Your task to perform on an android device: Add logitech g903 to the cart on newegg.com, then select checkout. Image 0: 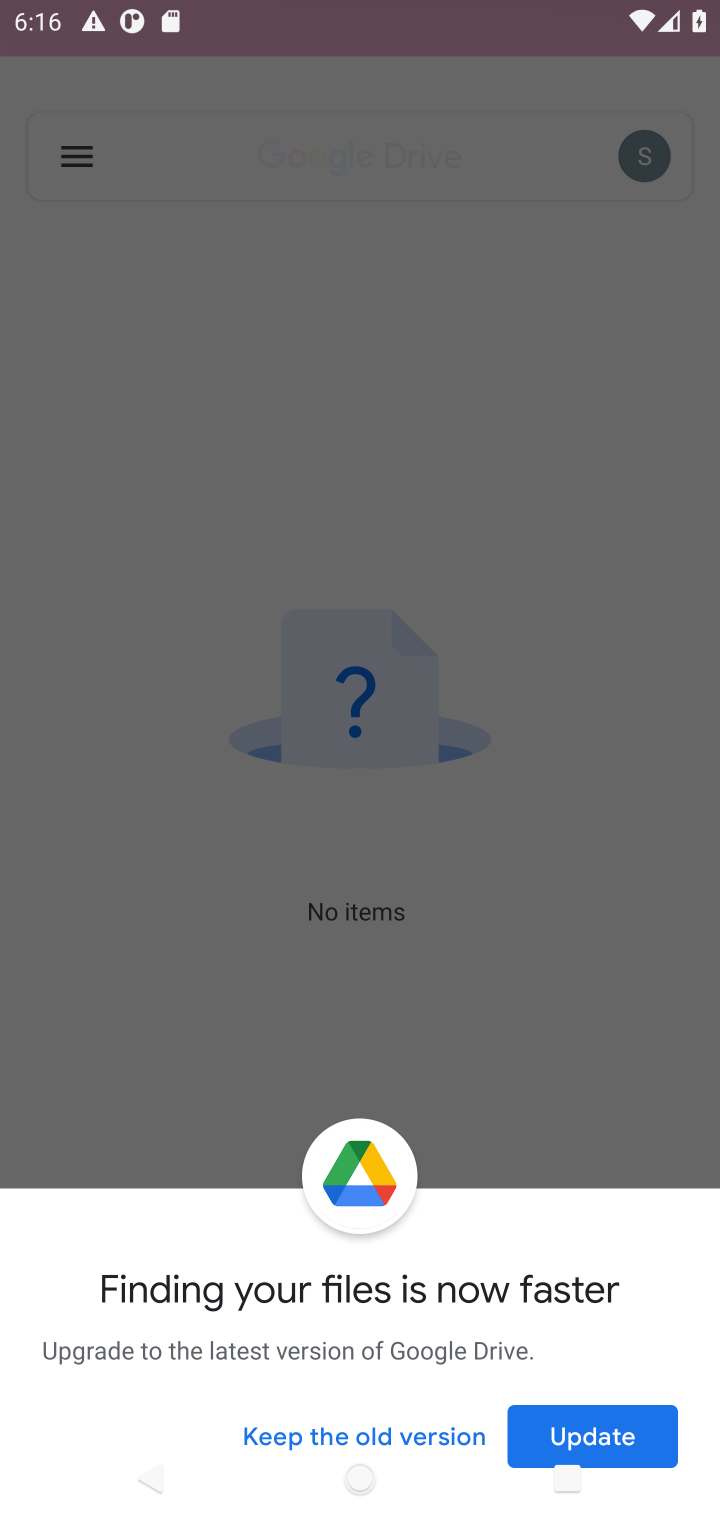
Step 0: press home button
Your task to perform on an android device: Add logitech g903 to the cart on newegg.com, then select checkout. Image 1: 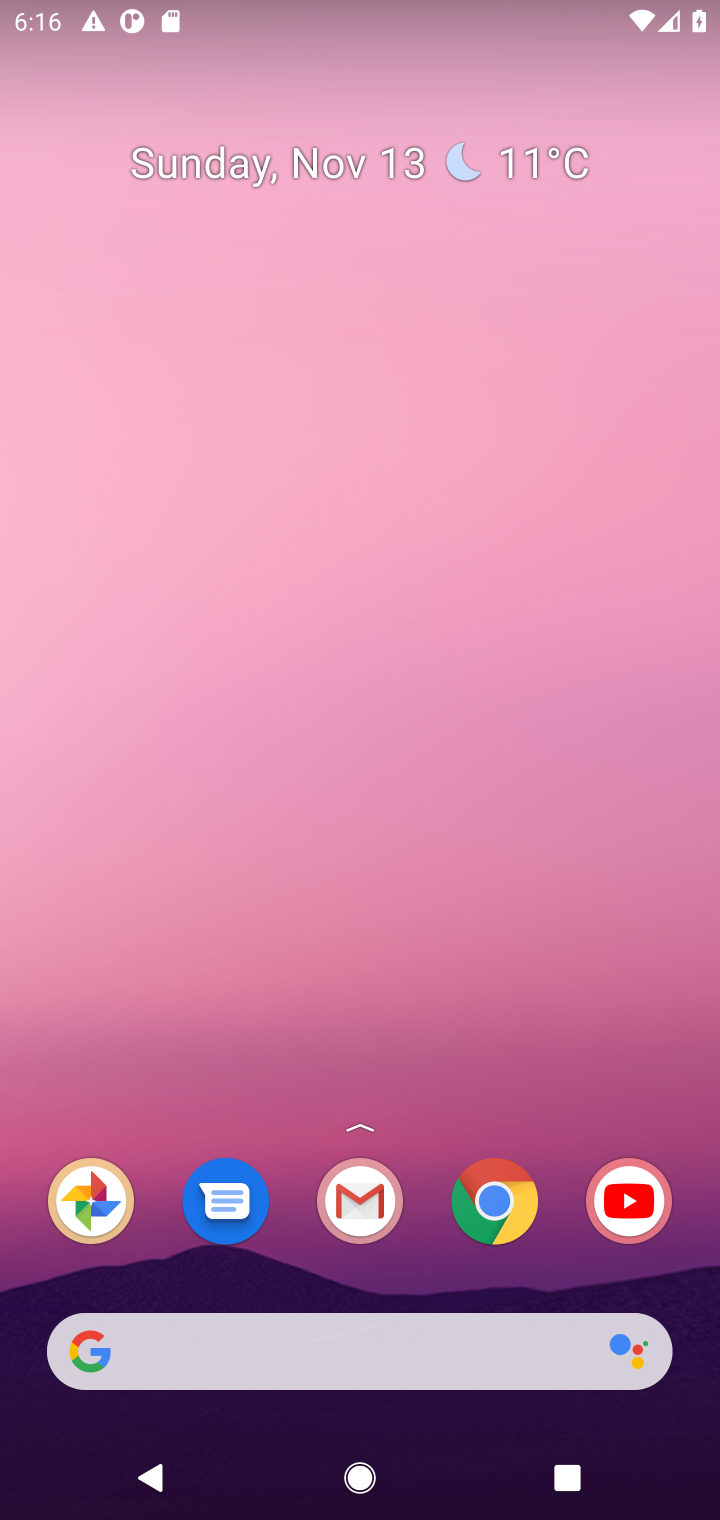
Step 1: drag from (431, 1298) to (431, 433)
Your task to perform on an android device: Add logitech g903 to the cart on newegg.com, then select checkout. Image 2: 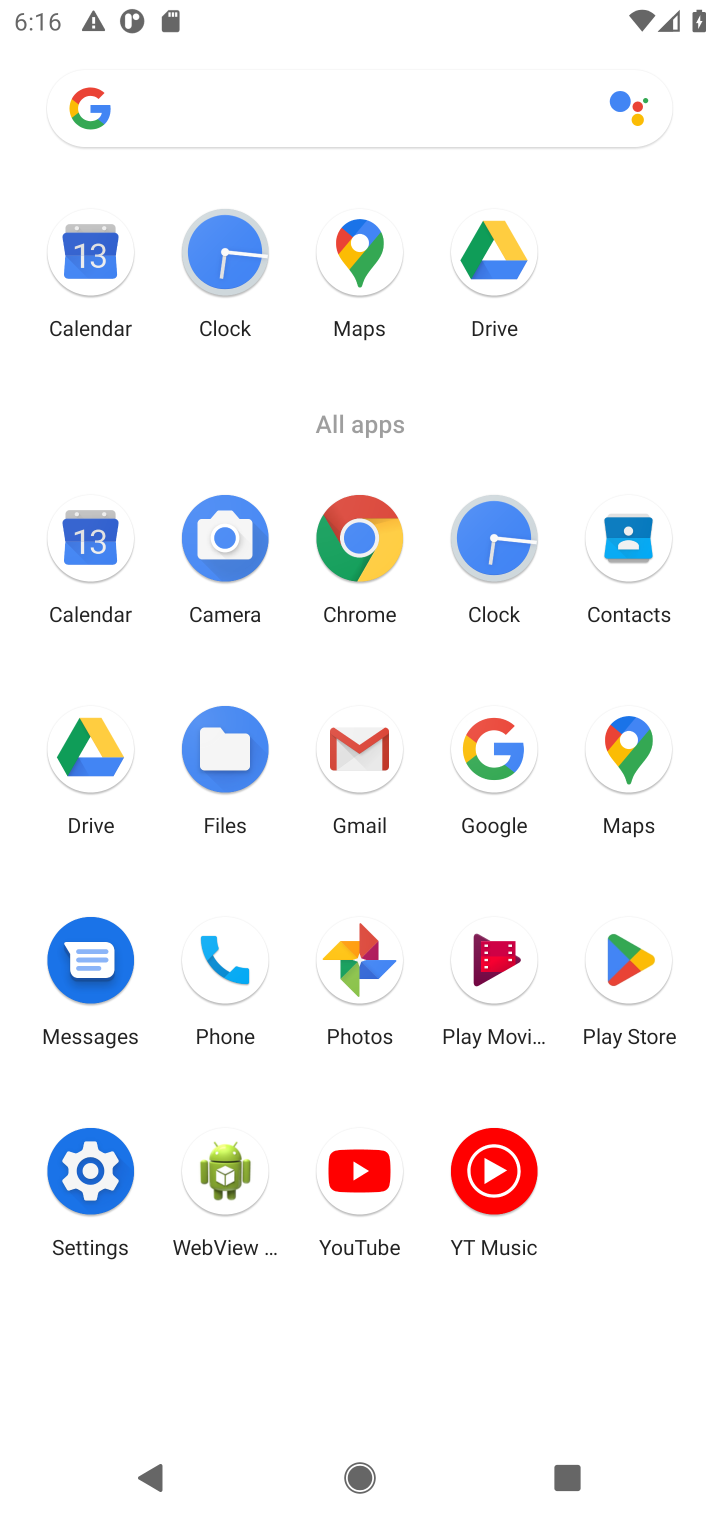
Step 2: click (352, 523)
Your task to perform on an android device: Add logitech g903 to the cart on newegg.com, then select checkout. Image 3: 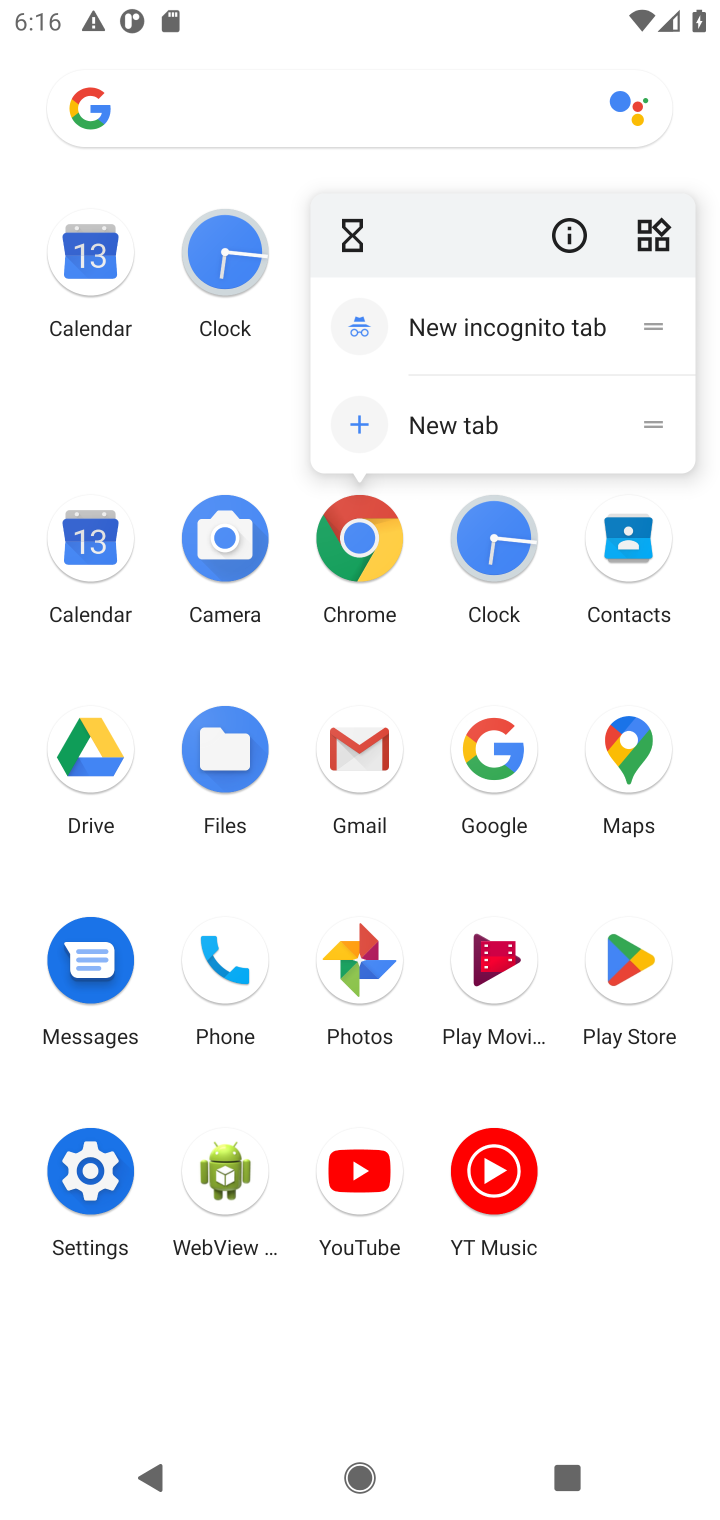
Step 3: click (367, 536)
Your task to perform on an android device: Add logitech g903 to the cart on newegg.com, then select checkout. Image 4: 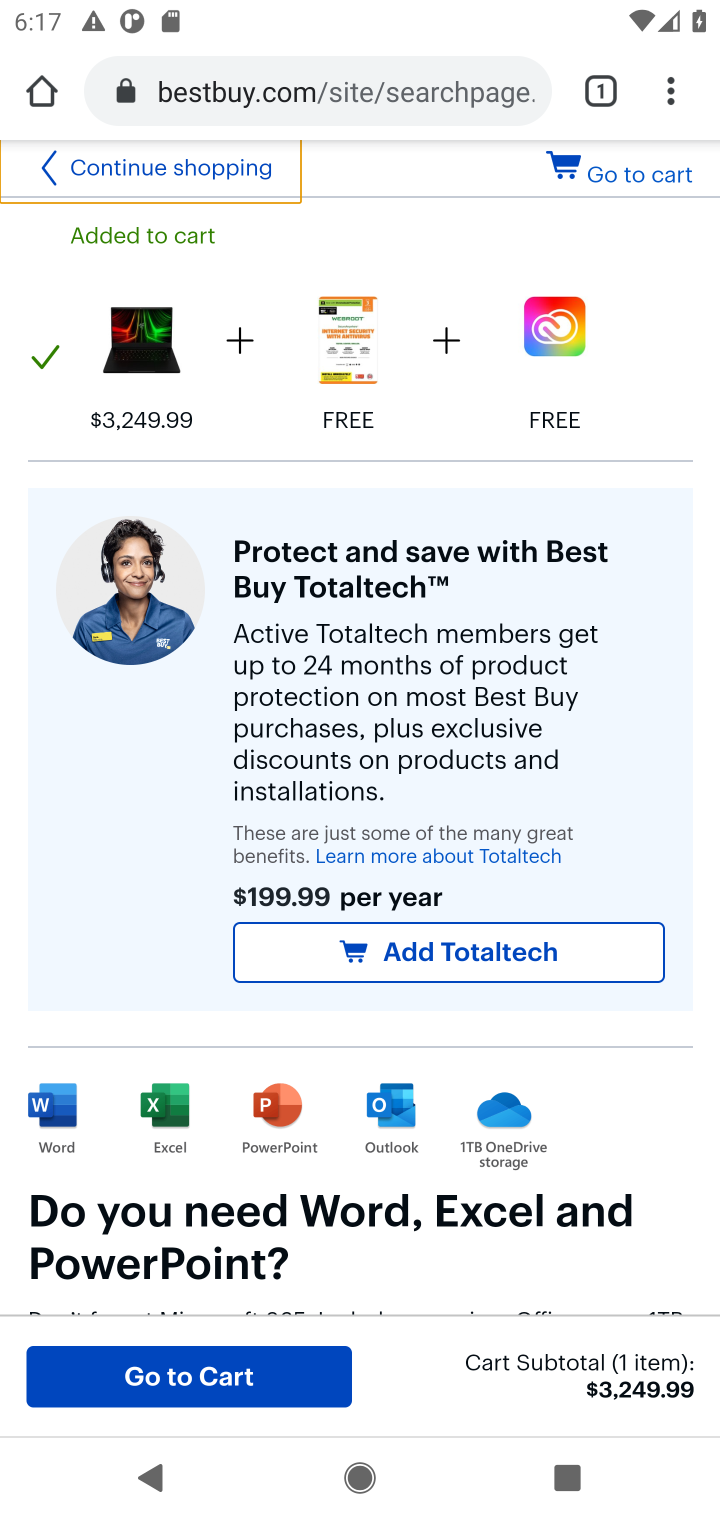
Step 4: click (398, 89)
Your task to perform on an android device: Add logitech g903 to the cart on newegg.com, then select checkout. Image 5: 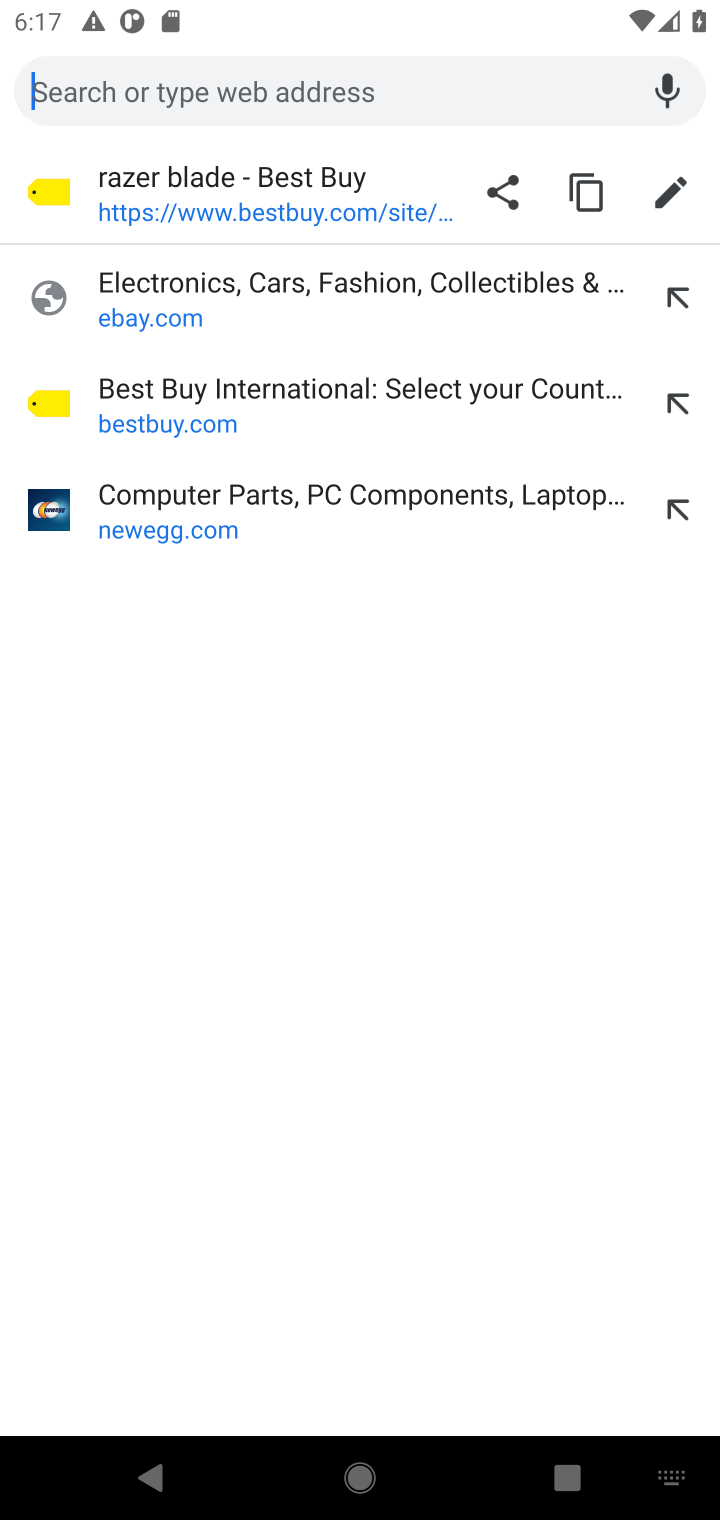
Step 5: type "newegg.com"
Your task to perform on an android device: Add logitech g903 to the cart on newegg.com, then select checkout. Image 6: 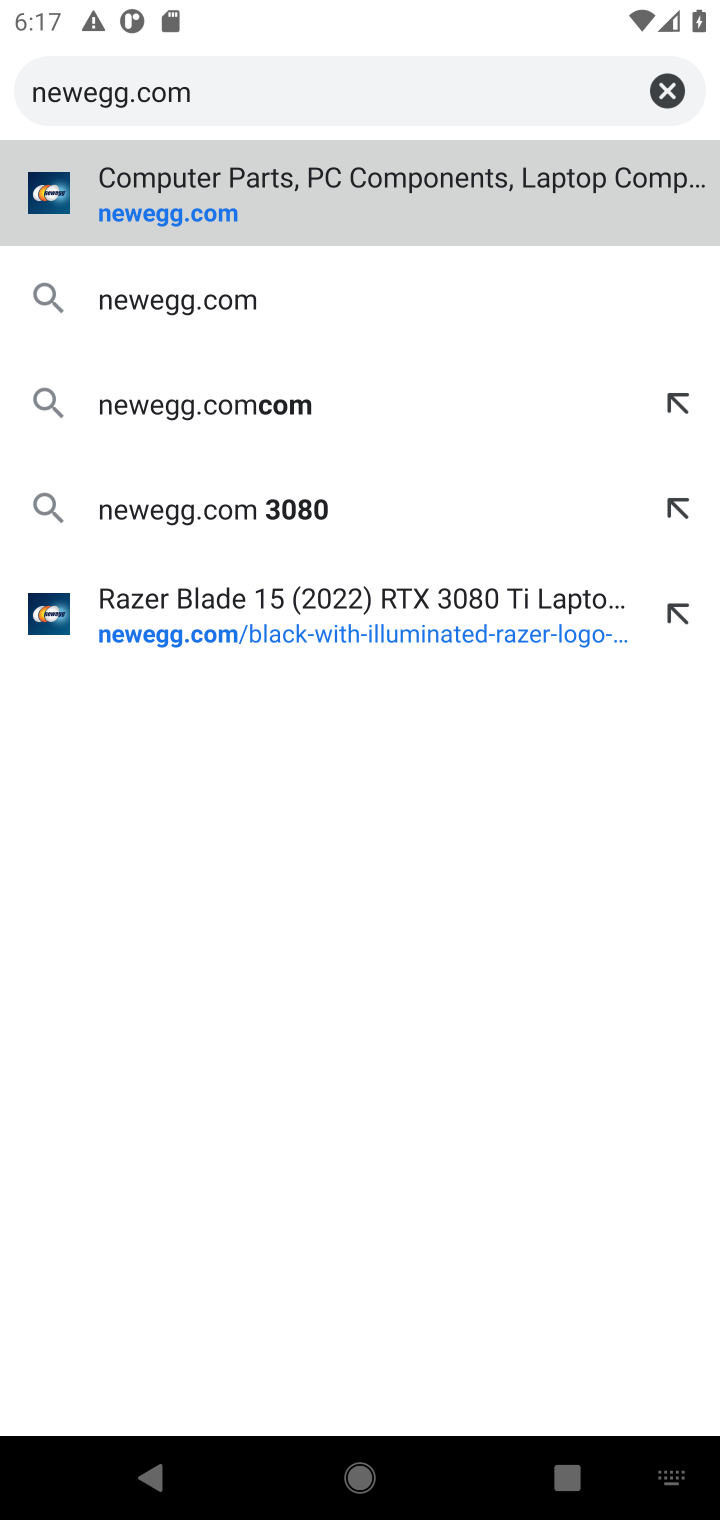
Step 6: press enter
Your task to perform on an android device: Add logitech g903 to the cart on newegg.com, then select checkout. Image 7: 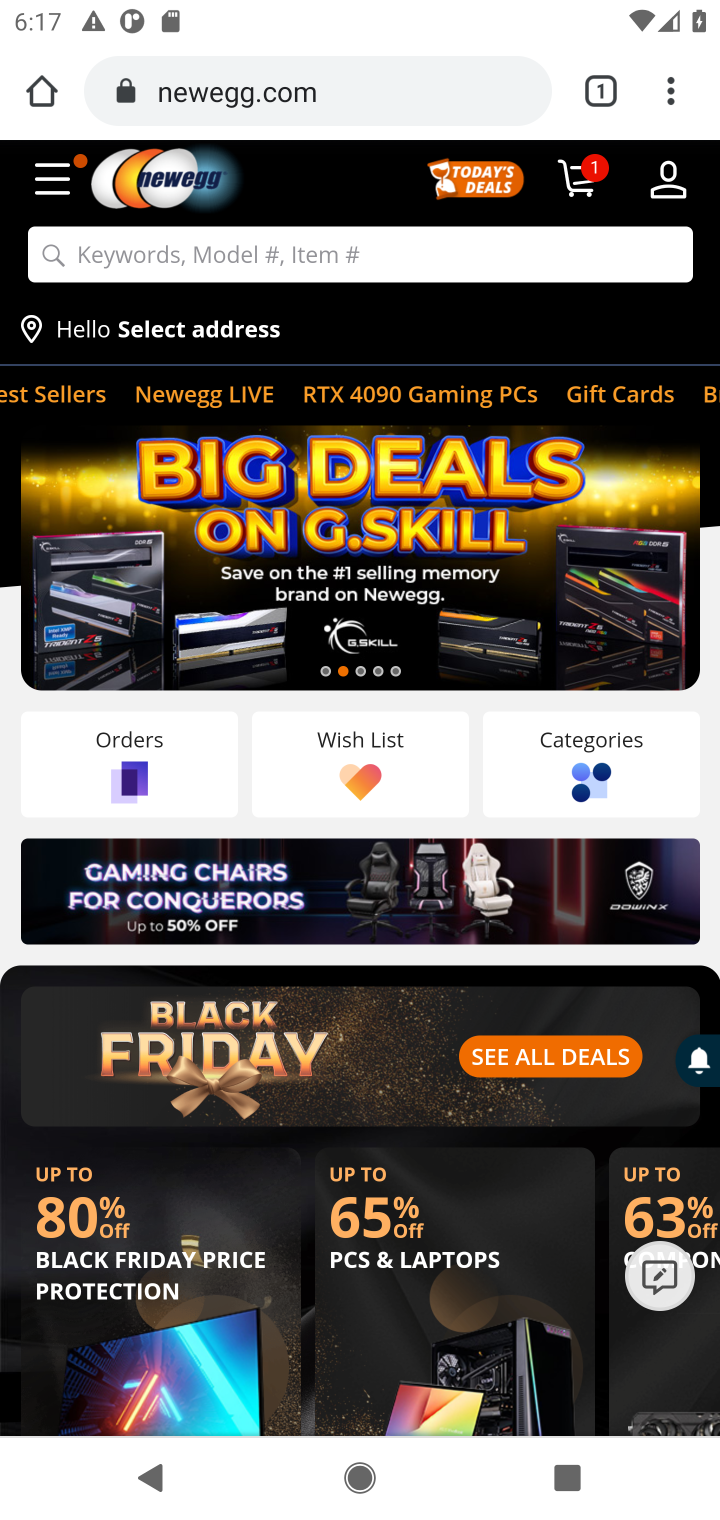
Step 7: click (315, 248)
Your task to perform on an android device: Add logitech g903 to the cart on newegg.com, then select checkout. Image 8: 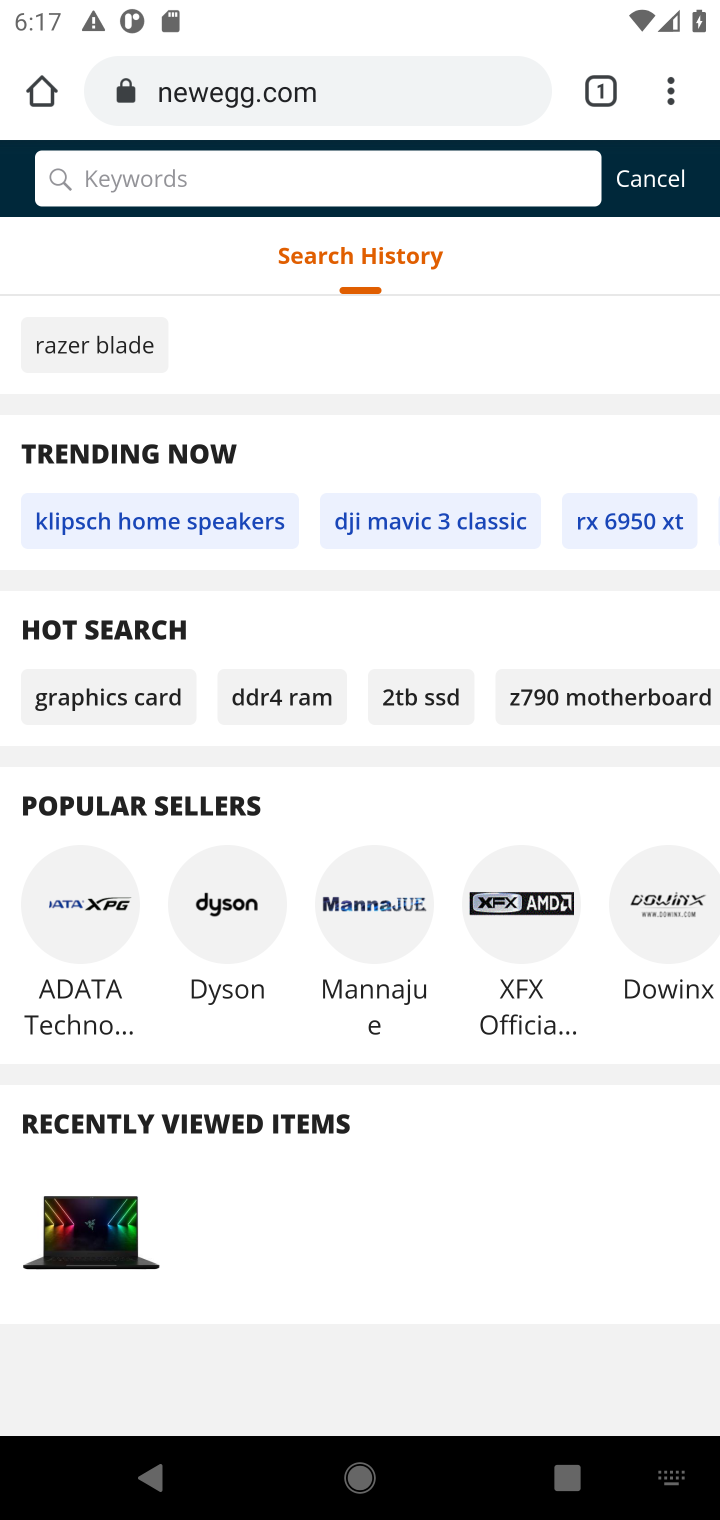
Step 8: type "logitech g903"
Your task to perform on an android device: Add logitech g903 to the cart on newegg.com, then select checkout. Image 9: 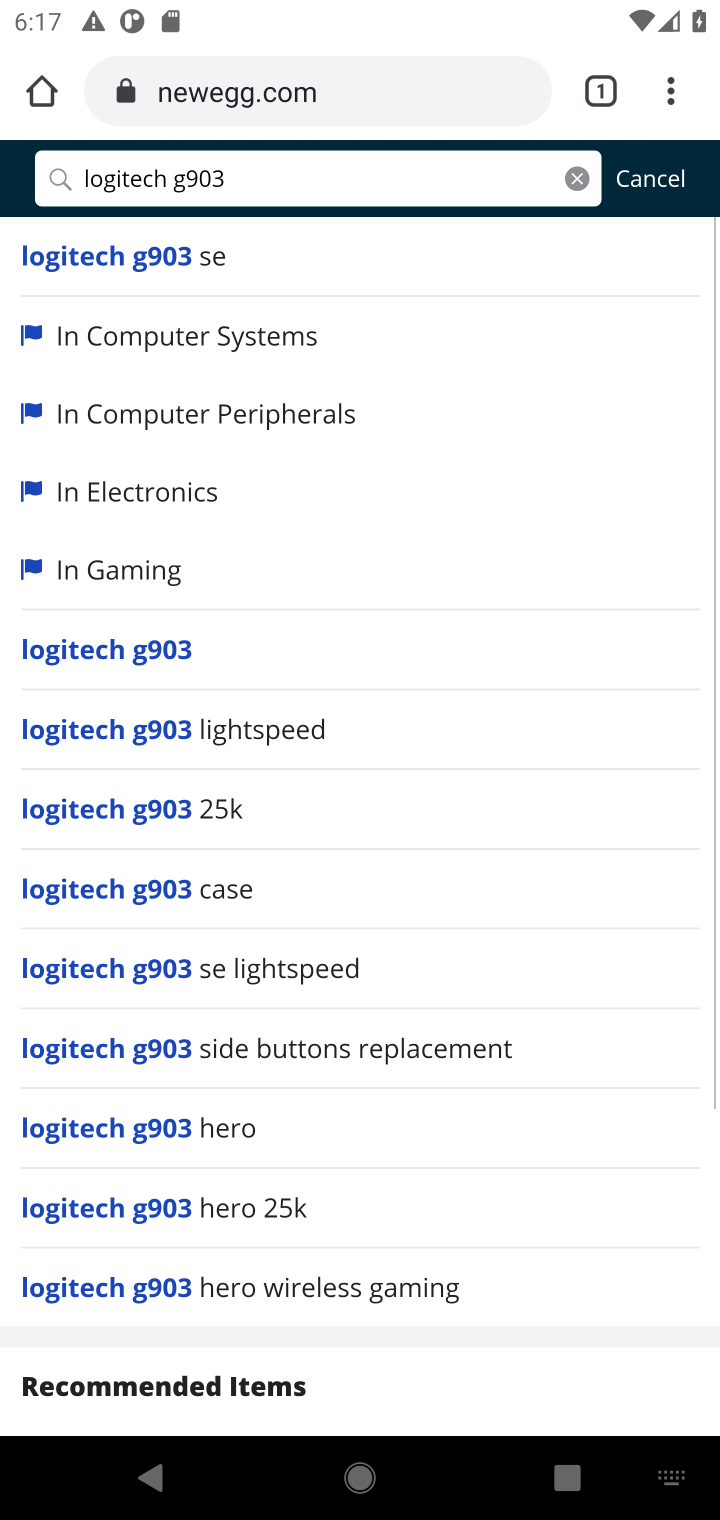
Step 9: press enter
Your task to perform on an android device: Add logitech g903 to the cart on newegg.com, then select checkout. Image 10: 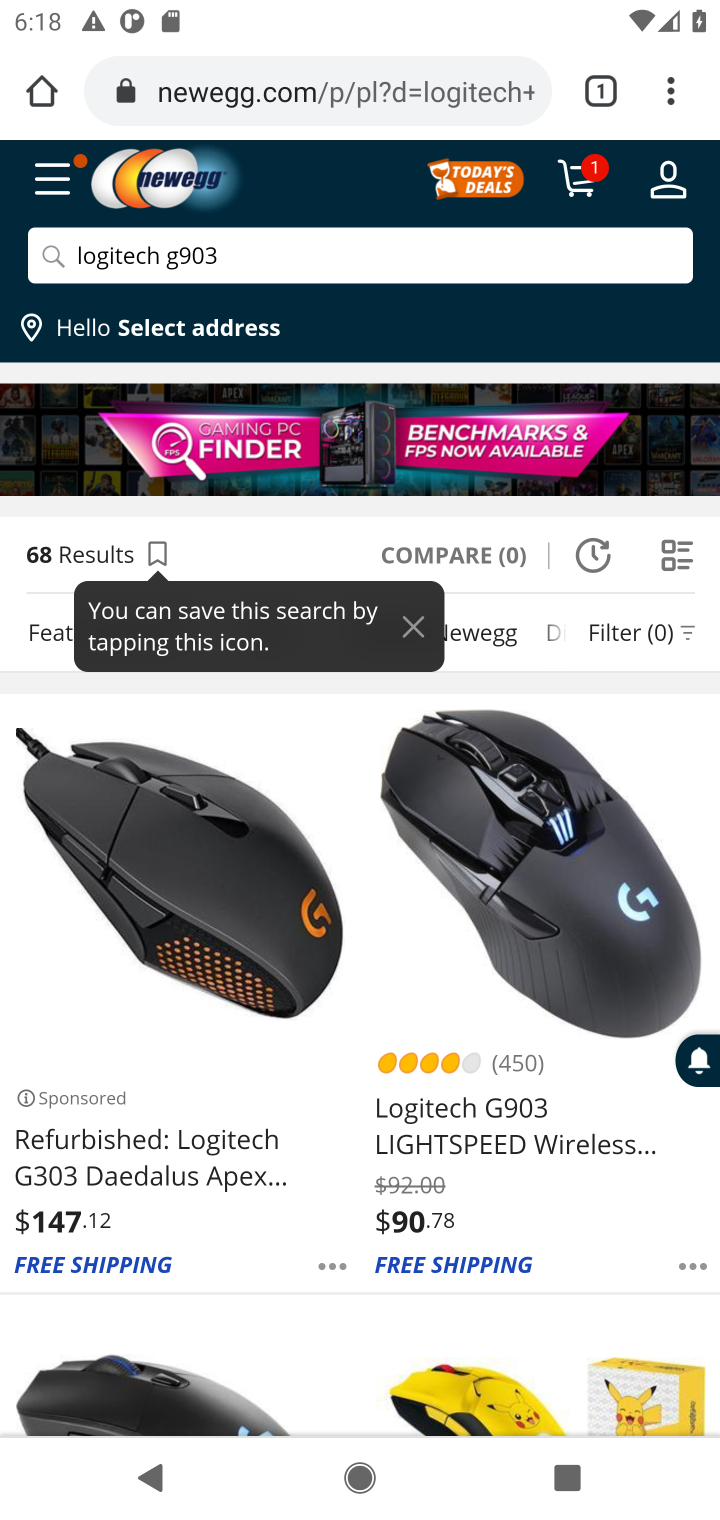
Step 10: click (453, 1129)
Your task to perform on an android device: Add logitech g903 to the cart on newegg.com, then select checkout. Image 11: 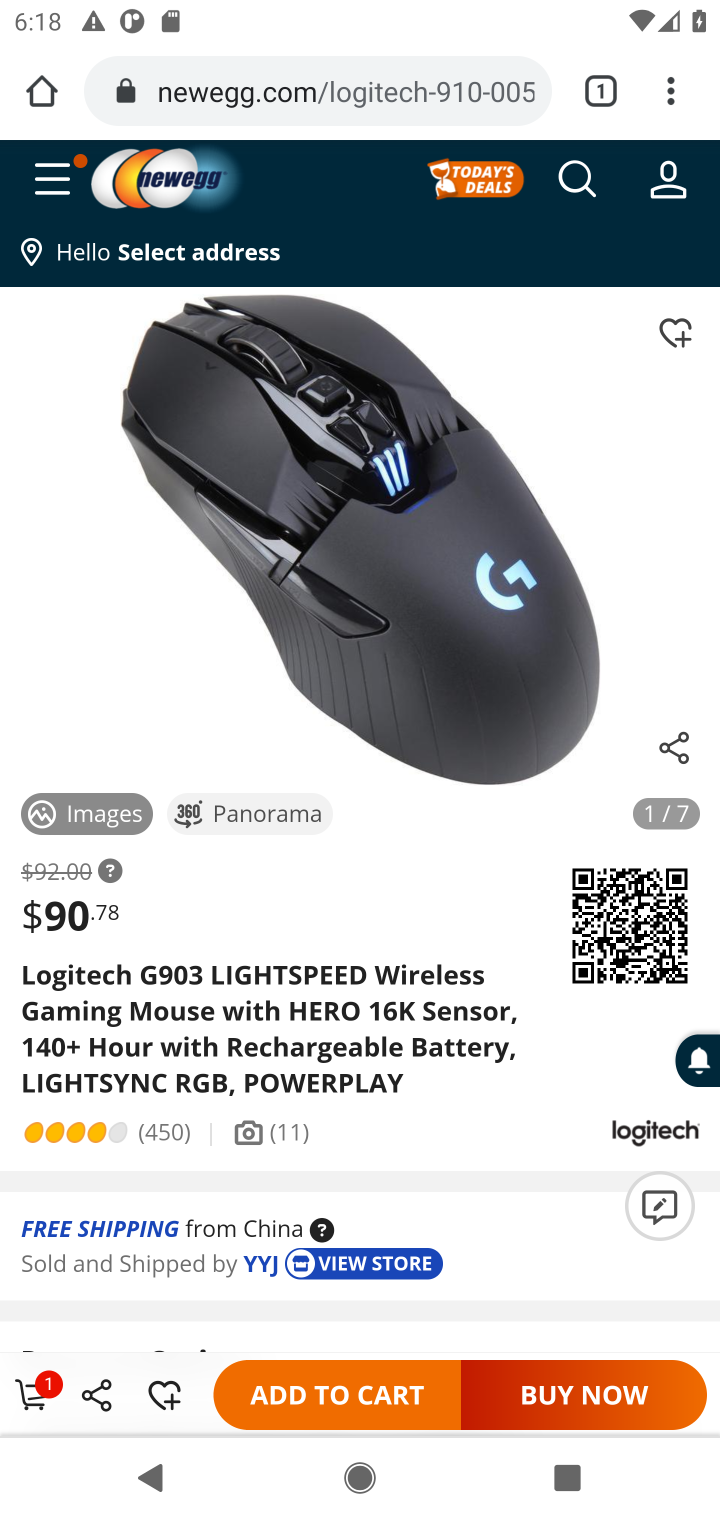
Step 11: click (283, 1396)
Your task to perform on an android device: Add logitech g903 to the cart on newegg.com, then select checkout. Image 12: 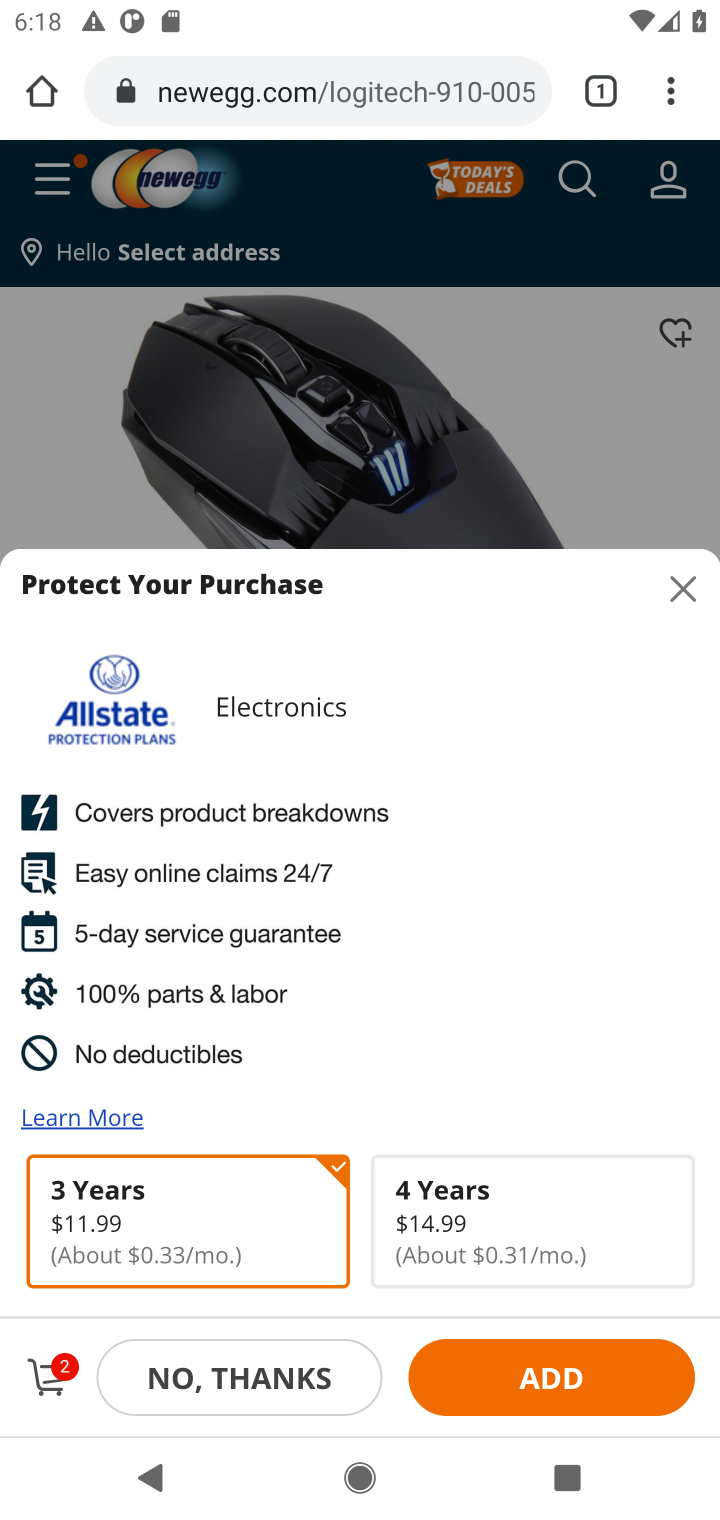
Step 12: click (66, 1359)
Your task to perform on an android device: Add logitech g903 to the cart on newegg.com, then select checkout. Image 13: 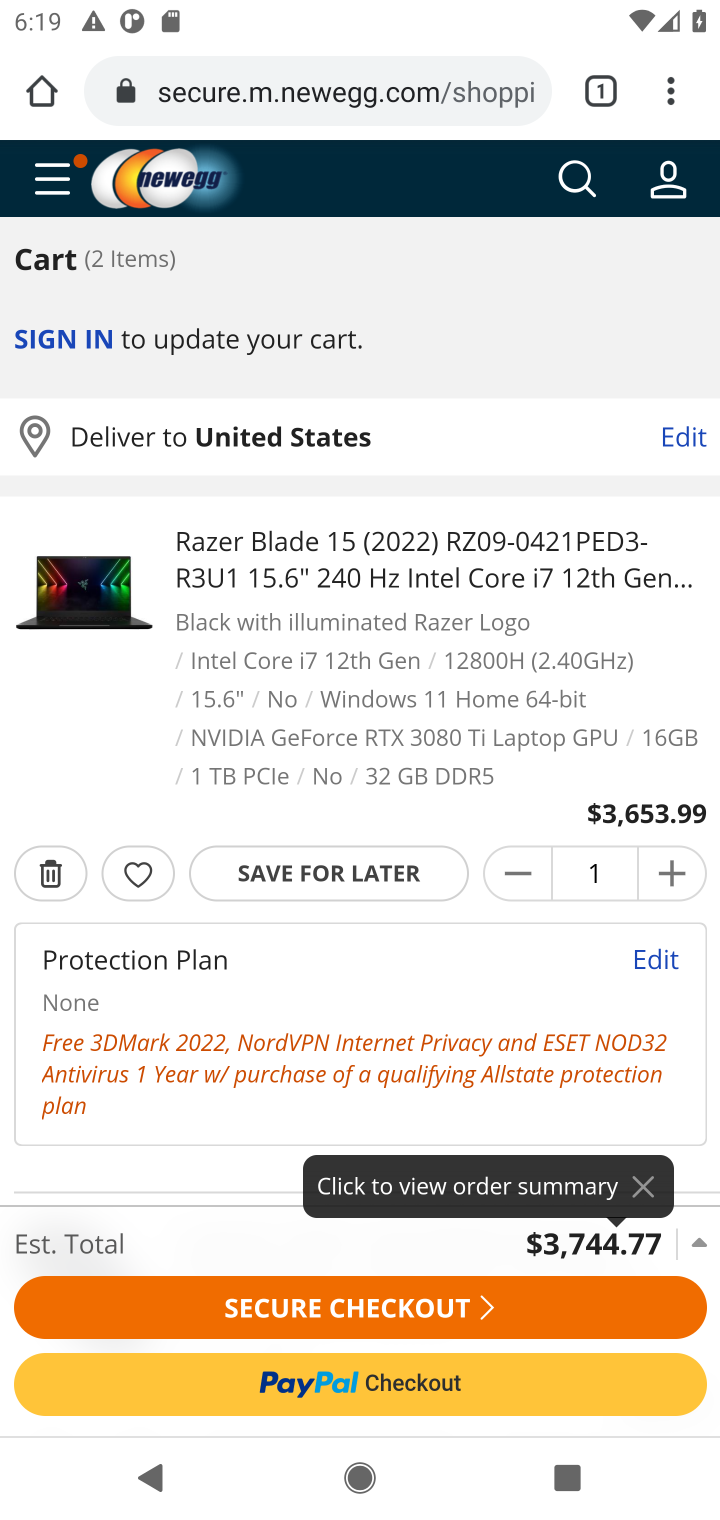
Step 13: click (368, 1315)
Your task to perform on an android device: Add logitech g903 to the cart on newegg.com, then select checkout. Image 14: 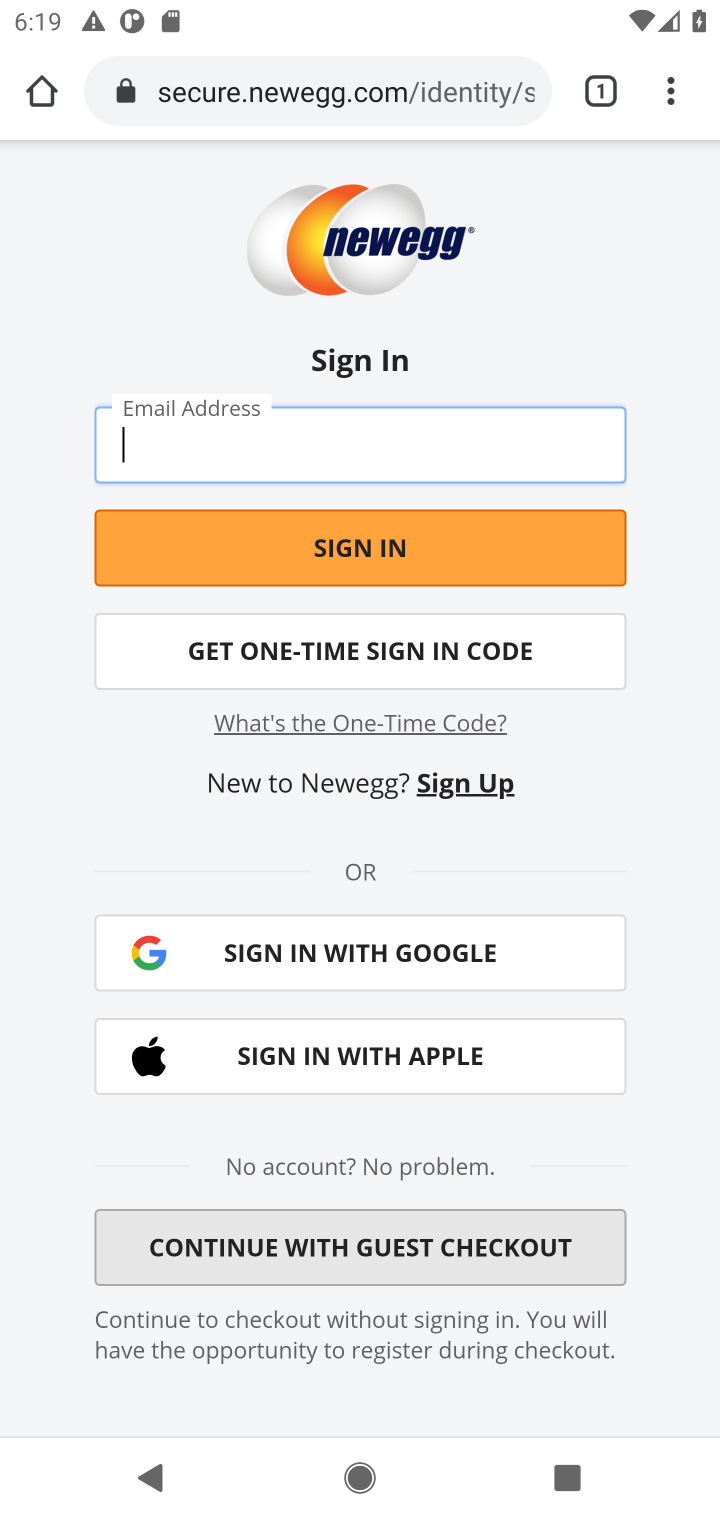
Step 14: task complete